Your task to perform on an android device: Open the calendar and show me this week's events? Image 0: 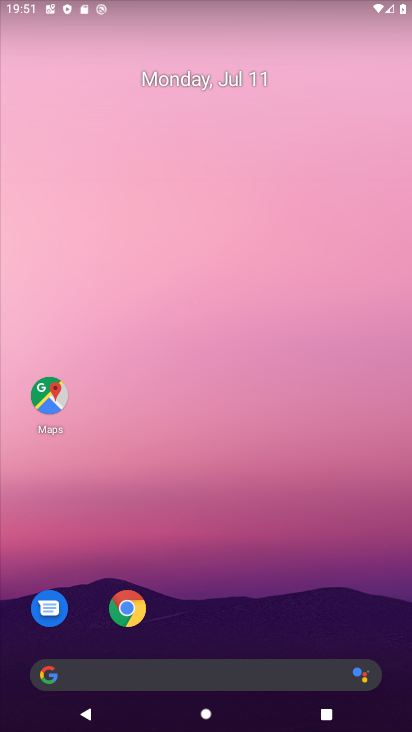
Step 0: drag from (258, 610) to (207, 49)
Your task to perform on an android device: Open the calendar and show me this week's events? Image 1: 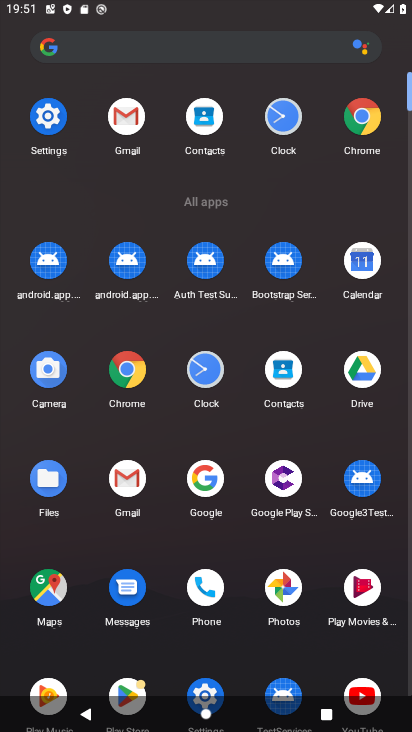
Step 1: click (365, 277)
Your task to perform on an android device: Open the calendar and show me this week's events? Image 2: 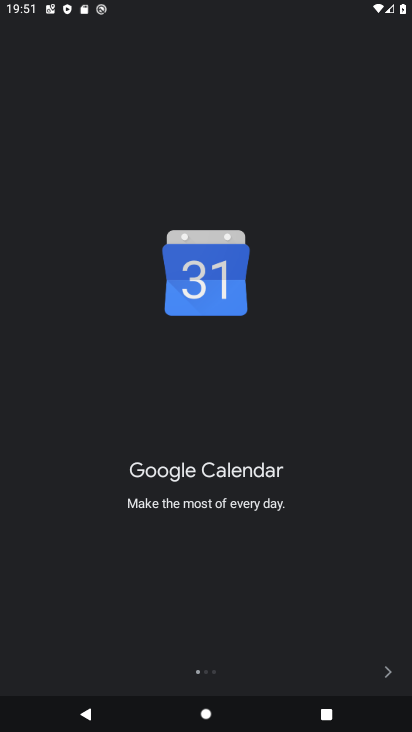
Step 2: click (382, 671)
Your task to perform on an android device: Open the calendar and show me this week's events? Image 3: 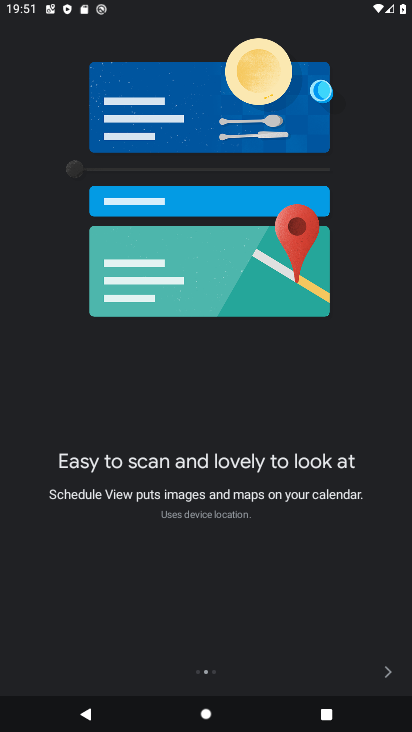
Step 3: click (382, 671)
Your task to perform on an android device: Open the calendar and show me this week's events? Image 4: 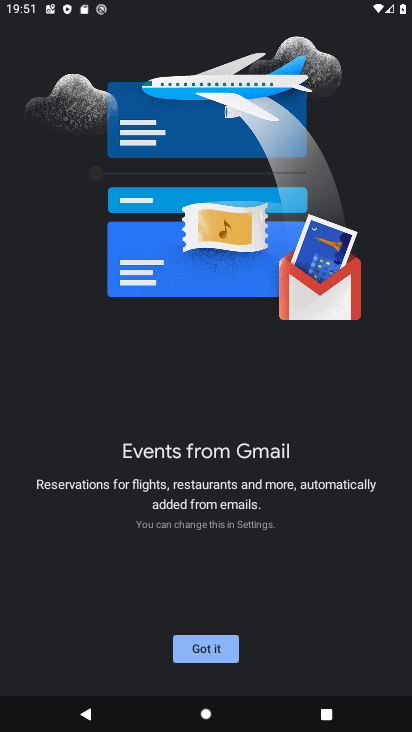
Step 4: click (202, 645)
Your task to perform on an android device: Open the calendar and show me this week's events? Image 5: 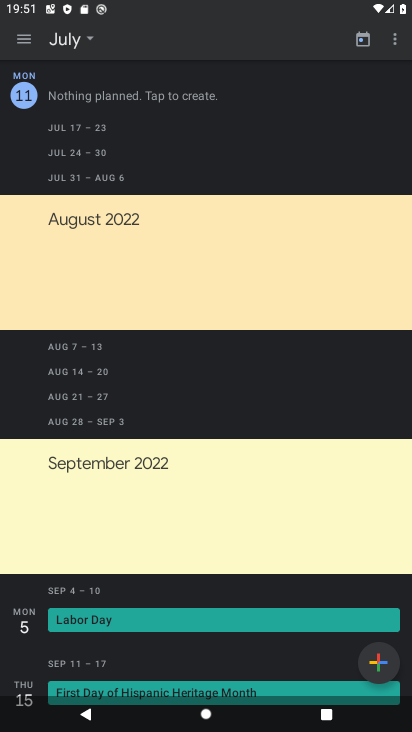
Step 5: click (28, 45)
Your task to perform on an android device: Open the calendar and show me this week's events? Image 6: 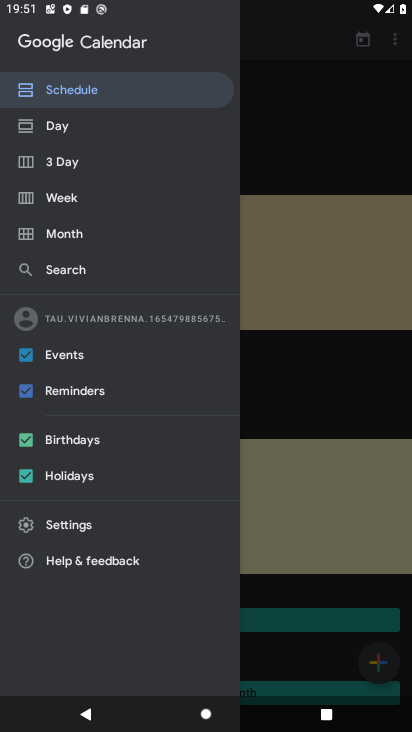
Step 6: click (54, 201)
Your task to perform on an android device: Open the calendar and show me this week's events? Image 7: 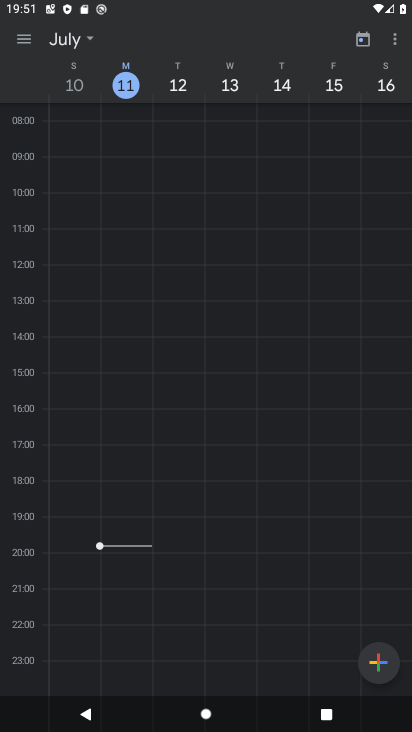
Step 7: task complete